Your task to perform on an android device: Show me recent news Image 0: 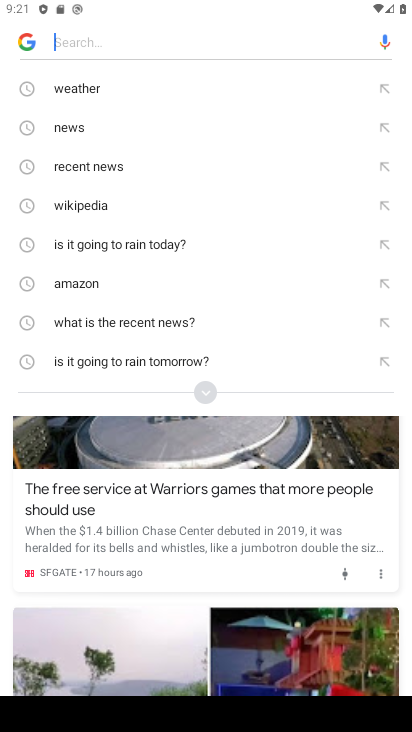
Step 0: click (73, 124)
Your task to perform on an android device: Show me recent news Image 1: 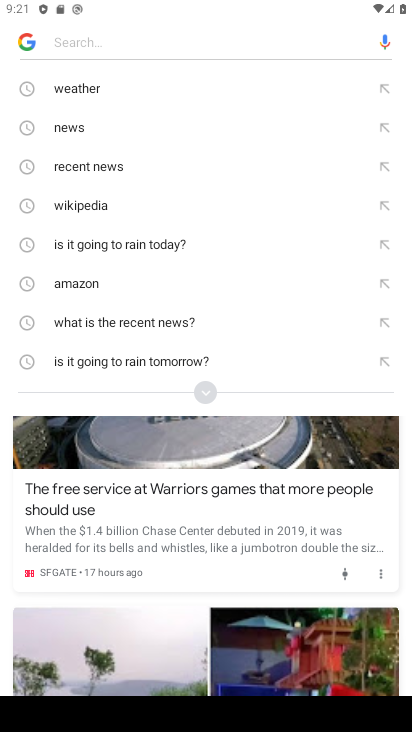
Step 1: click (70, 115)
Your task to perform on an android device: Show me recent news Image 2: 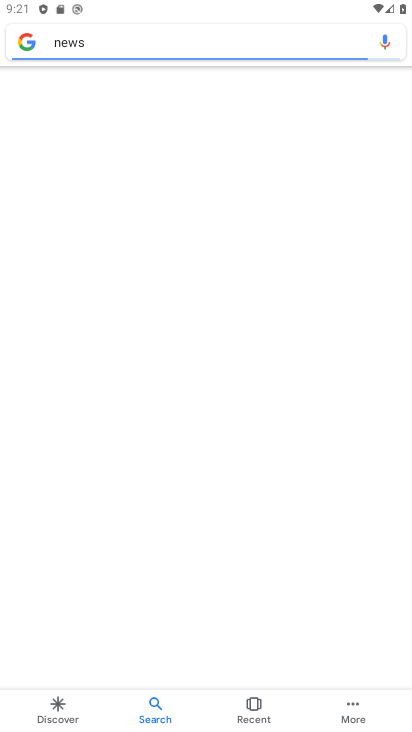
Step 2: task complete